Your task to perform on an android device: Open Chrome and go to settings Image 0: 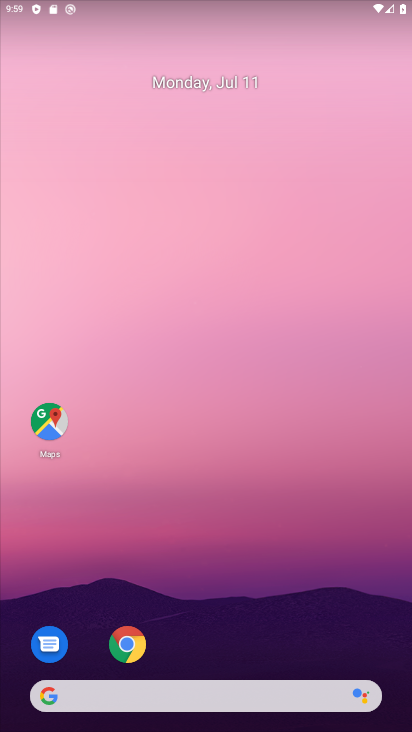
Step 0: click (124, 643)
Your task to perform on an android device: Open Chrome and go to settings Image 1: 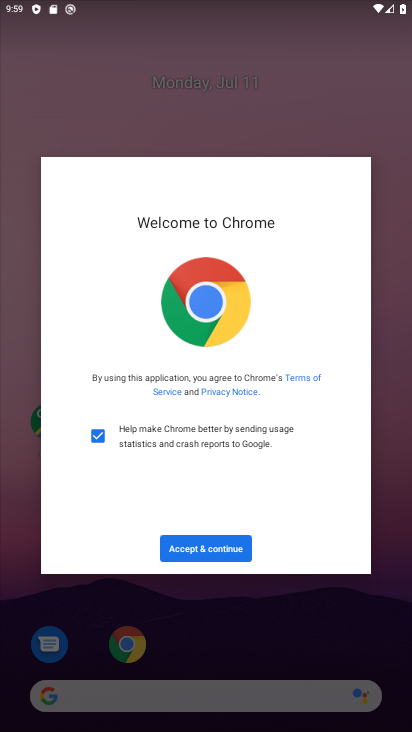
Step 1: click (203, 536)
Your task to perform on an android device: Open Chrome and go to settings Image 2: 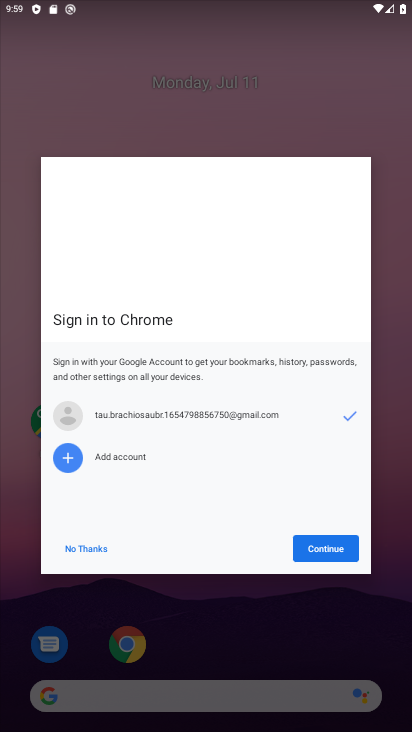
Step 2: click (203, 536)
Your task to perform on an android device: Open Chrome and go to settings Image 3: 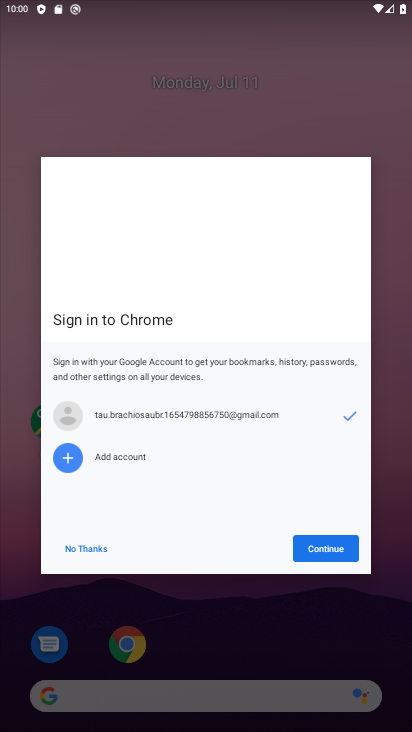
Step 3: click (301, 549)
Your task to perform on an android device: Open Chrome and go to settings Image 4: 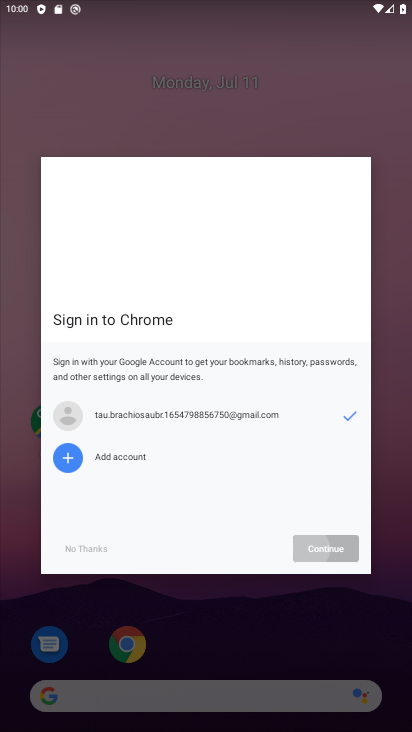
Step 4: click (301, 549)
Your task to perform on an android device: Open Chrome and go to settings Image 5: 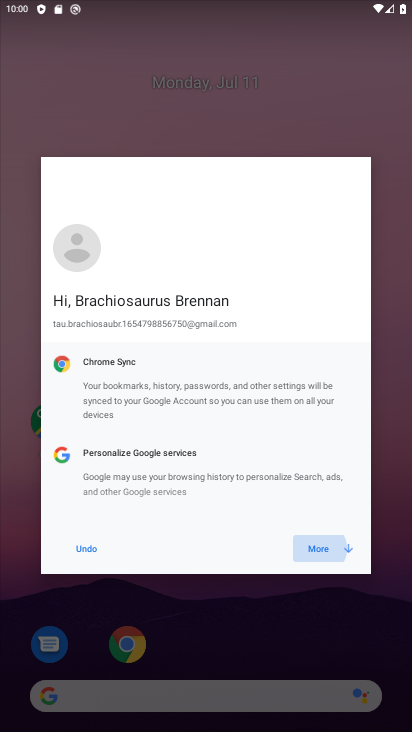
Step 5: click (301, 549)
Your task to perform on an android device: Open Chrome and go to settings Image 6: 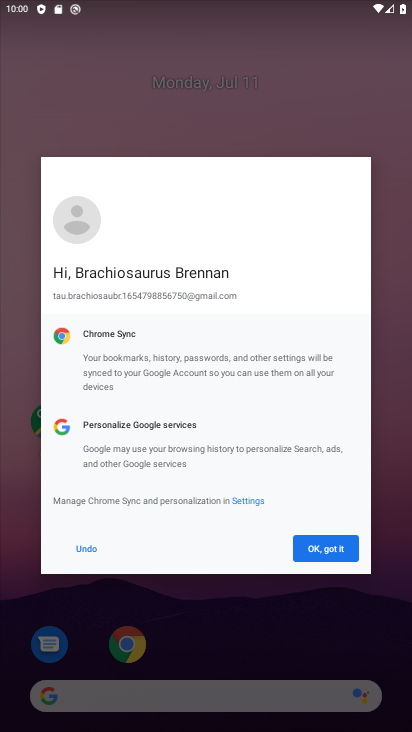
Step 6: click (301, 549)
Your task to perform on an android device: Open Chrome and go to settings Image 7: 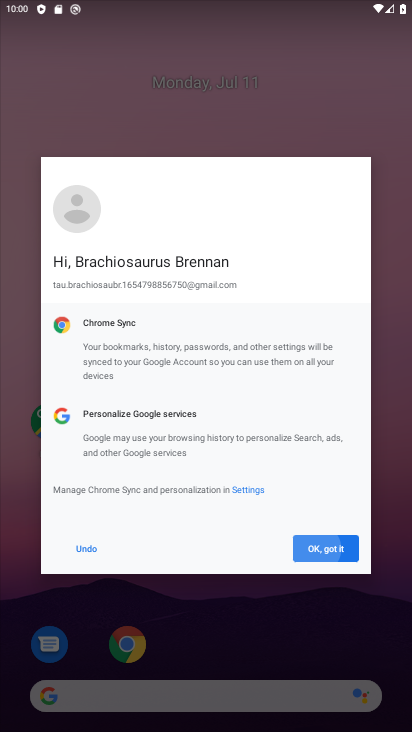
Step 7: click (301, 549)
Your task to perform on an android device: Open Chrome and go to settings Image 8: 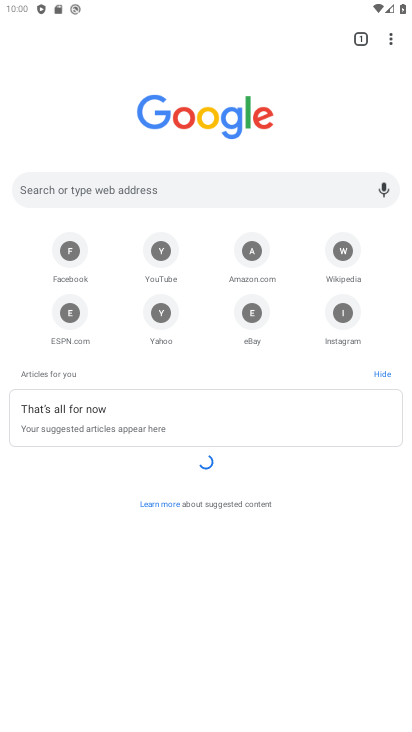
Step 8: click (388, 42)
Your task to perform on an android device: Open Chrome and go to settings Image 9: 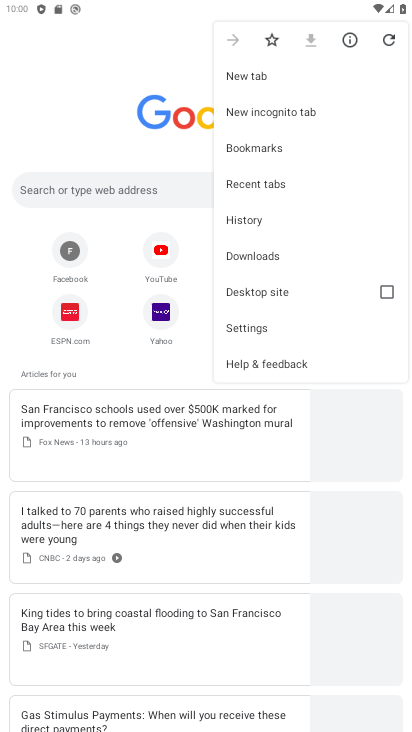
Step 9: click (233, 329)
Your task to perform on an android device: Open Chrome and go to settings Image 10: 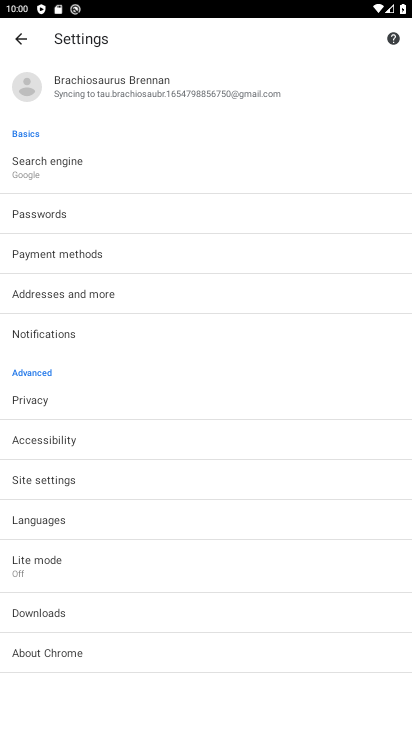
Step 10: task complete